Your task to perform on an android device: change your default location settings in chrome Image 0: 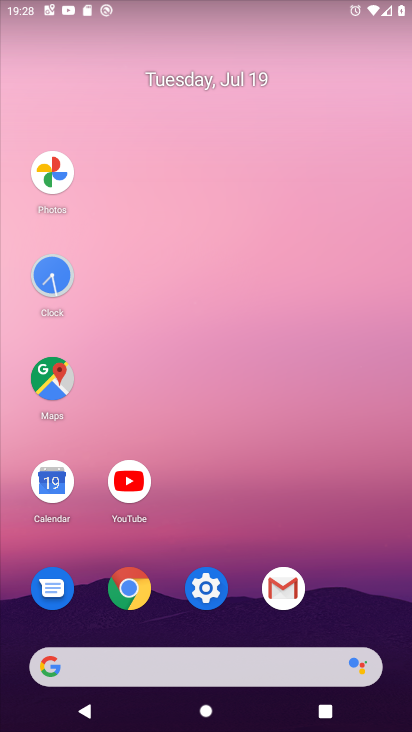
Step 0: click (128, 590)
Your task to perform on an android device: change your default location settings in chrome Image 1: 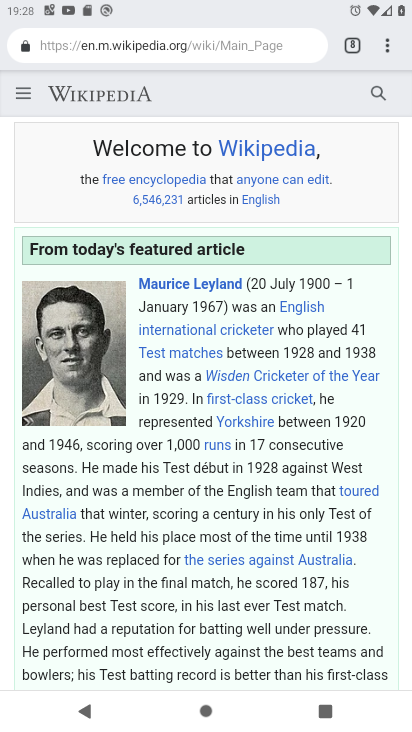
Step 1: click (388, 40)
Your task to perform on an android device: change your default location settings in chrome Image 2: 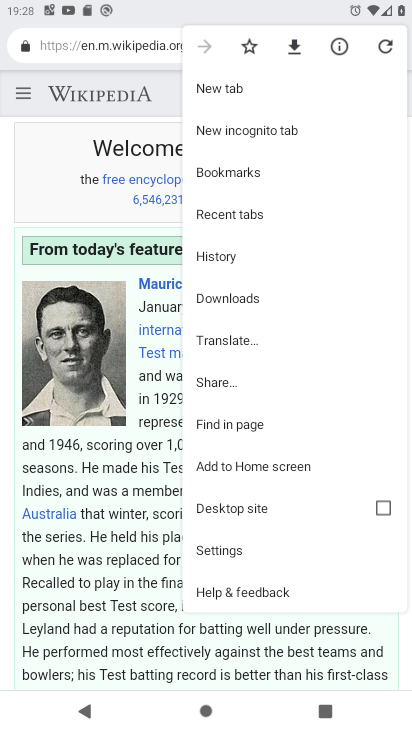
Step 2: click (232, 548)
Your task to perform on an android device: change your default location settings in chrome Image 3: 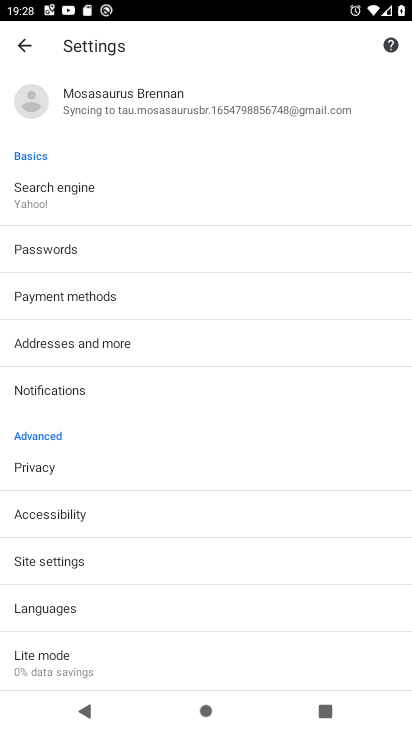
Step 3: click (46, 562)
Your task to perform on an android device: change your default location settings in chrome Image 4: 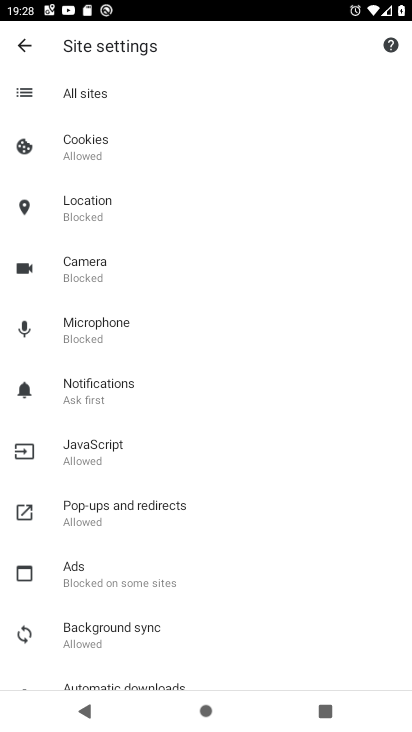
Step 4: click (83, 200)
Your task to perform on an android device: change your default location settings in chrome Image 5: 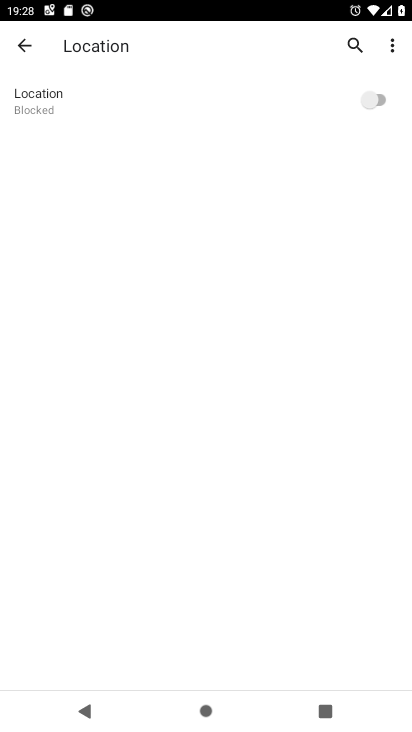
Step 5: click (371, 104)
Your task to perform on an android device: change your default location settings in chrome Image 6: 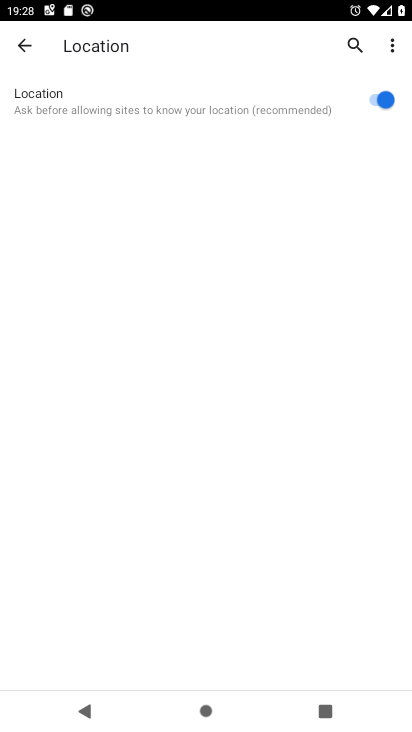
Step 6: task complete